Your task to perform on an android device: refresh tabs in the chrome app Image 0: 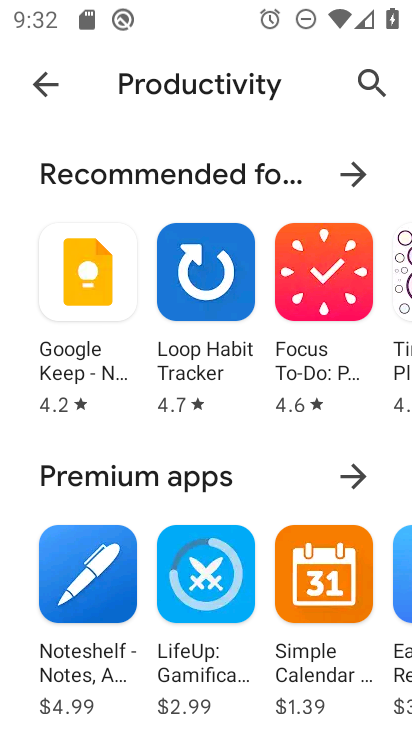
Step 0: press home button
Your task to perform on an android device: refresh tabs in the chrome app Image 1: 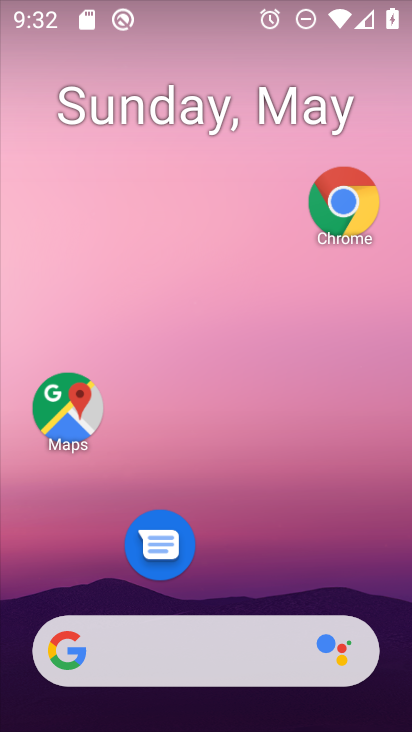
Step 1: click (336, 213)
Your task to perform on an android device: refresh tabs in the chrome app Image 2: 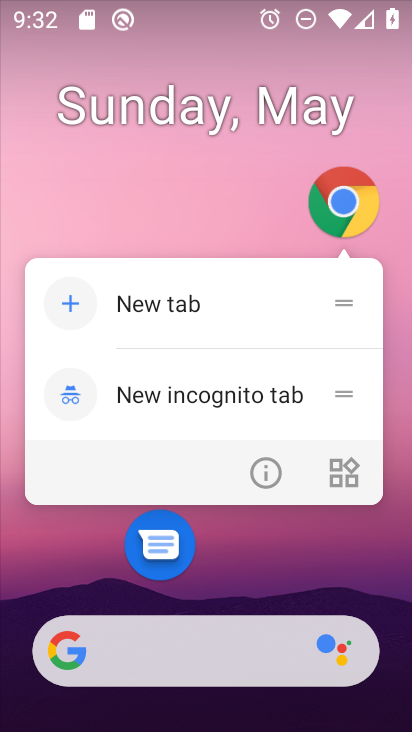
Step 2: click (336, 213)
Your task to perform on an android device: refresh tabs in the chrome app Image 3: 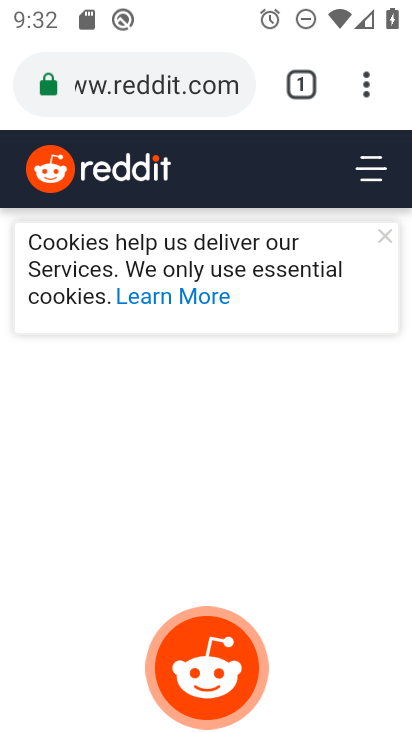
Step 3: click (365, 82)
Your task to perform on an android device: refresh tabs in the chrome app Image 4: 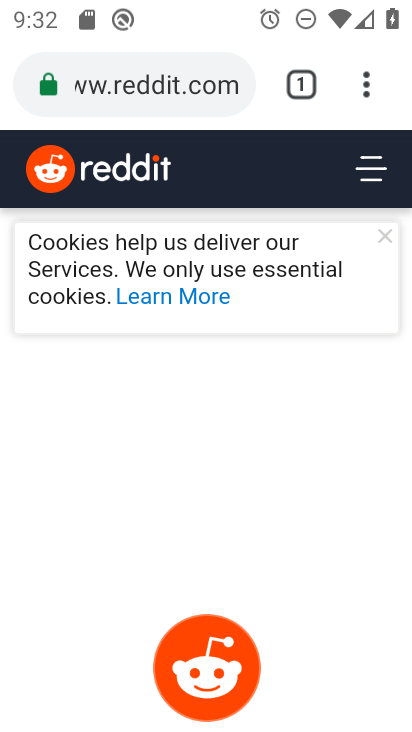
Step 4: click (366, 83)
Your task to perform on an android device: refresh tabs in the chrome app Image 5: 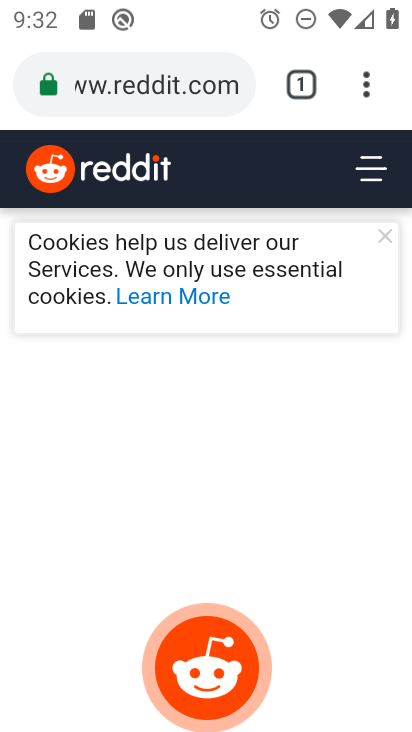
Step 5: click (367, 87)
Your task to perform on an android device: refresh tabs in the chrome app Image 6: 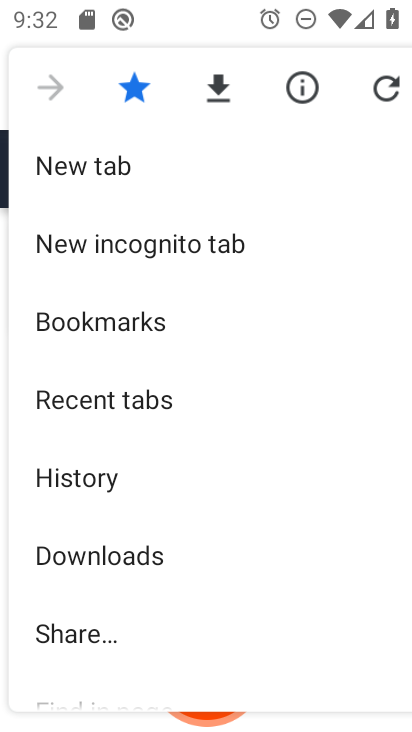
Step 6: click (376, 91)
Your task to perform on an android device: refresh tabs in the chrome app Image 7: 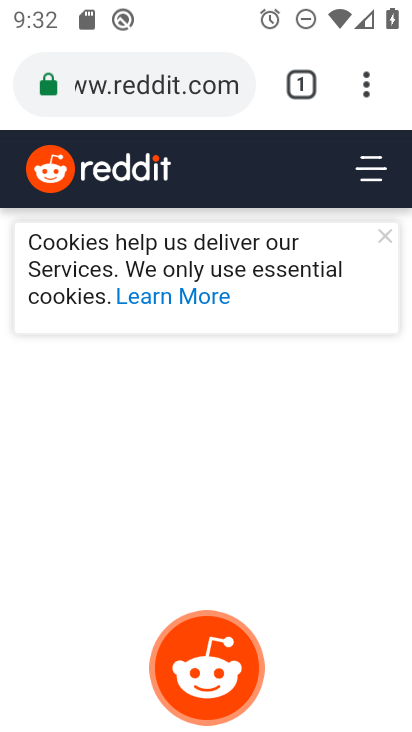
Step 7: task complete